Your task to perform on an android device: empty trash in google photos Image 0: 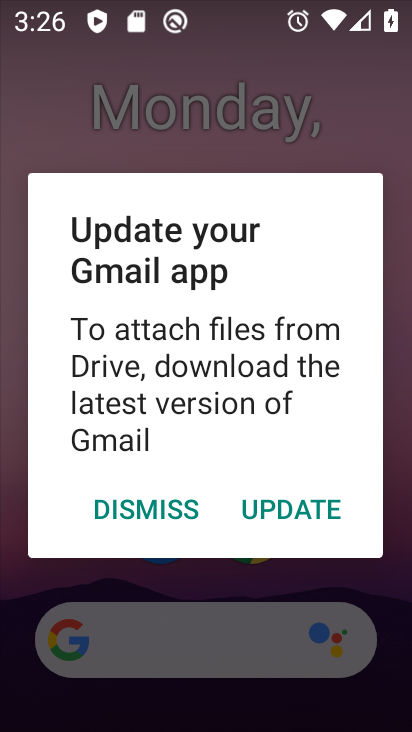
Step 0: click (154, 516)
Your task to perform on an android device: empty trash in google photos Image 1: 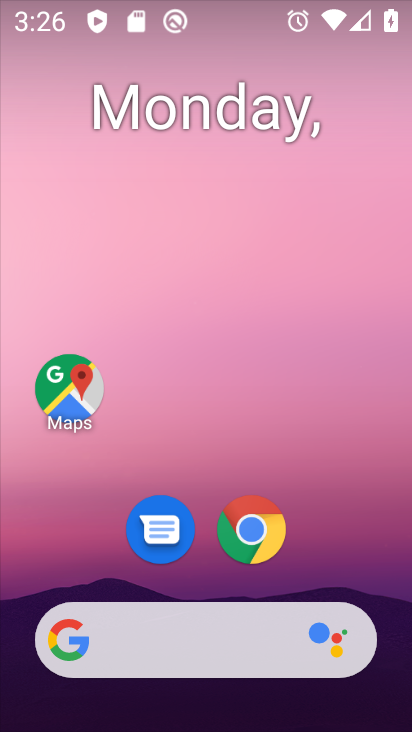
Step 1: drag from (199, 501) to (265, 37)
Your task to perform on an android device: empty trash in google photos Image 2: 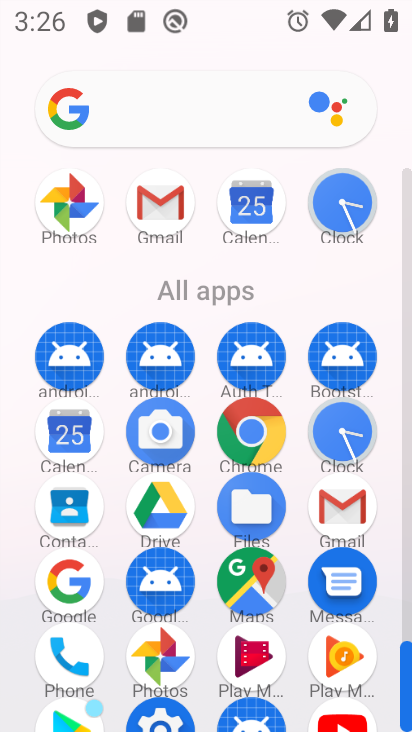
Step 2: click (148, 651)
Your task to perform on an android device: empty trash in google photos Image 3: 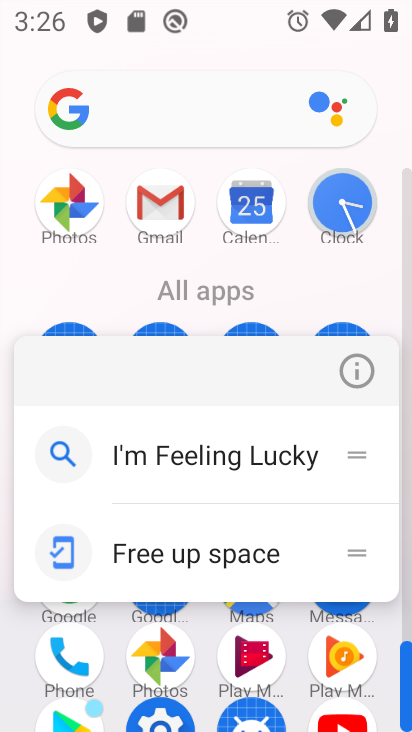
Step 3: click (160, 670)
Your task to perform on an android device: empty trash in google photos Image 4: 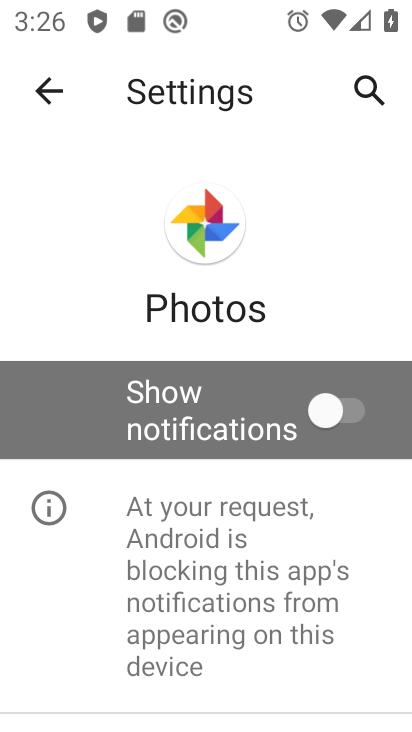
Step 4: click (57, 85)
Your task to perform on an android device: empty trash in google photos Image 5: 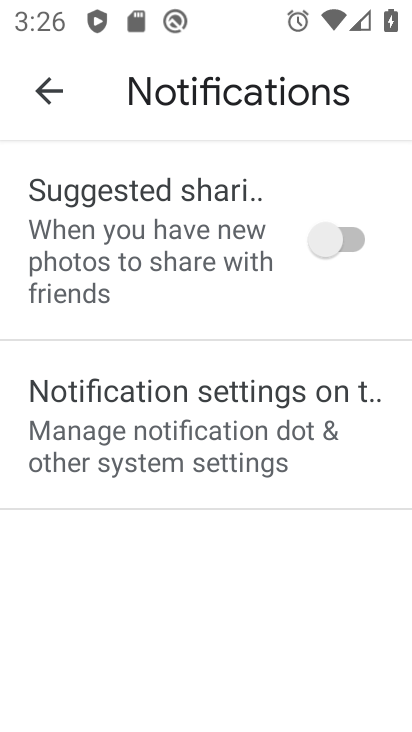
Step 5: click (51, 105)
Your task to perform on an android device: empty trash in google photos Image 6: 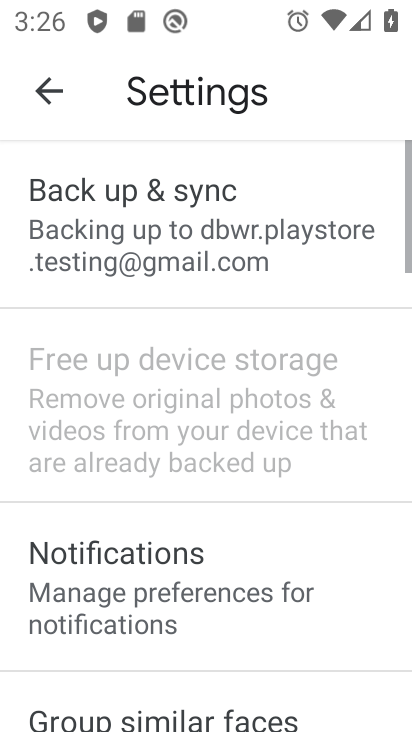
Step 6: click (50, 85)
Your task to perform on an android device: empty trash in google photos Image 7: 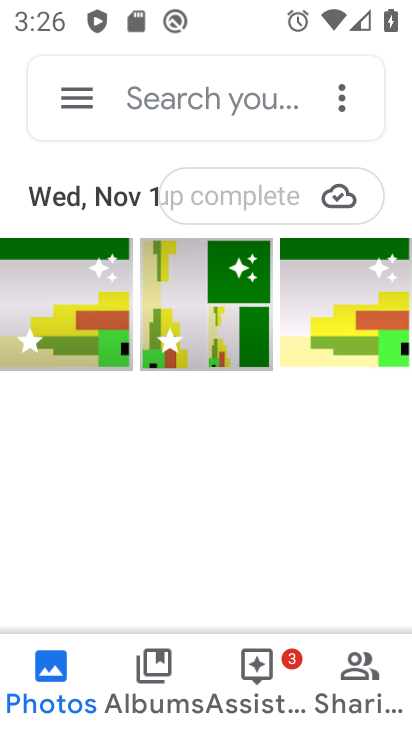
Step 7: click (82, 91)
Your task to perform on an android device: empty trash in google photos Image 8: 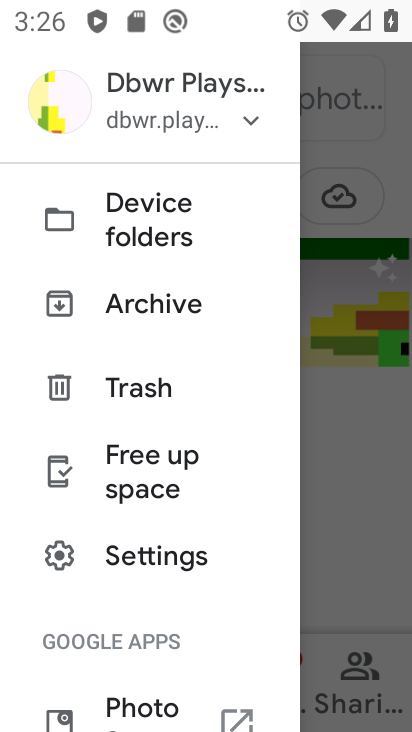
Step 8: click (165, 387)
Your task to perform on an android device: empty trash in google photos Image 9: 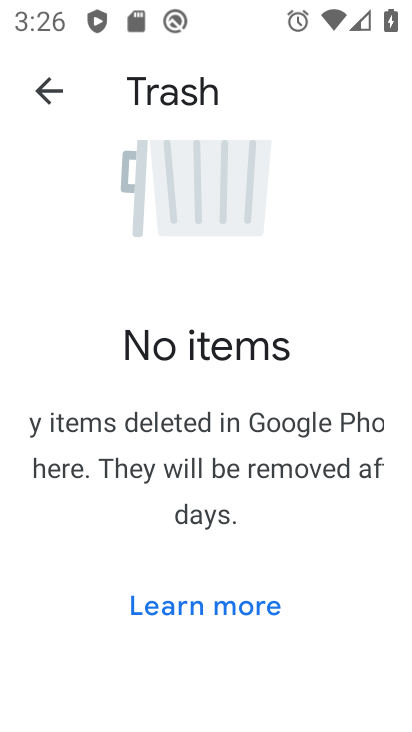
Step 9: task complete